Your task to perform on an android device: check battery use Image 0: 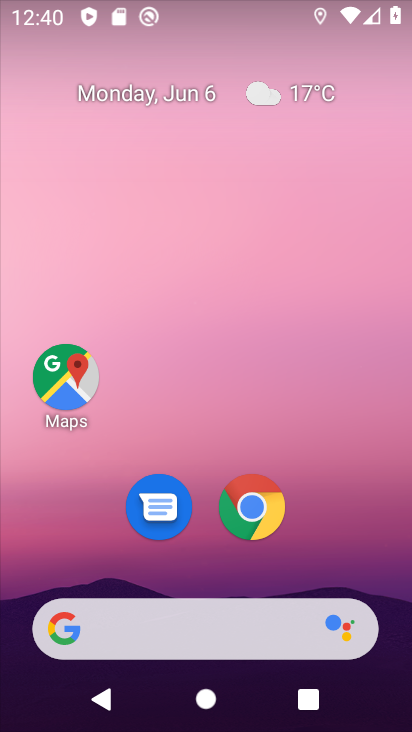
Step 0: drag from (208, 447) to (271, 0)
Your task to perform on an android device: check battery use Image 1: 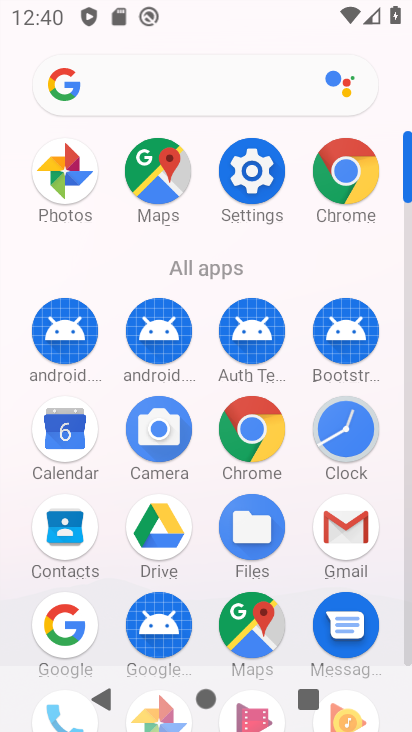
Step 1: click (261, 178)
Your task to perform on an android device: check battery use Image 2: 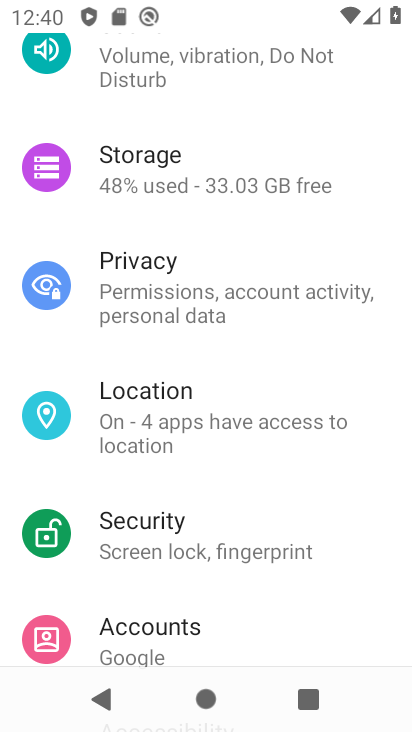
Step 2: drag from (240, 235) to (245, 655)
Your task to perform on an android device: check battery use Image 3: 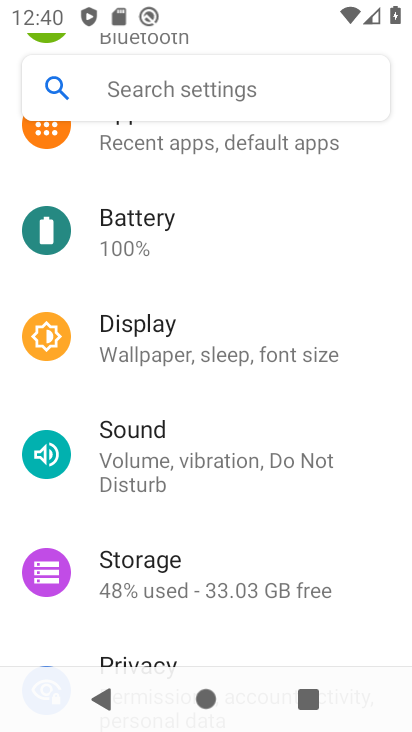
Step 3: click (212, 235)
Your task to perform on an android device: check battery use Image 4: 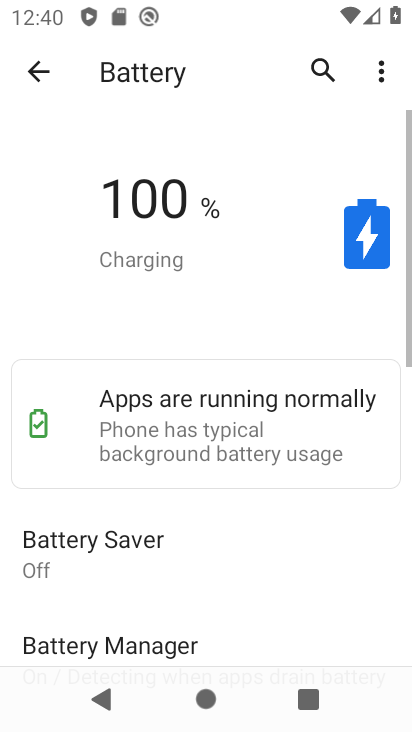
Step 4: click (385, 74)
Your task to perform on an android device: check battery use Image 5: 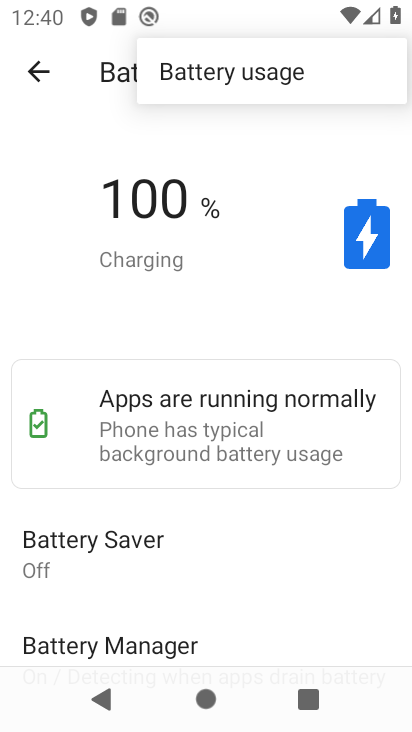
Step 5: click (303, 74)
Your task to perform on an android device: check battery use Image 6: 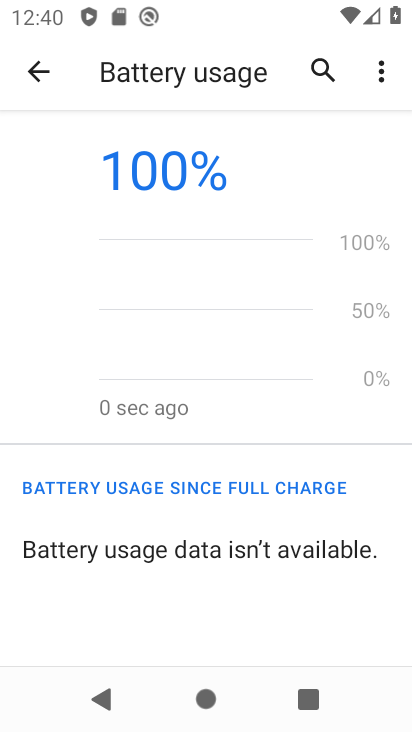
Step 6: task complete